Your task to perform on an android device: turn on wifi Image 0: 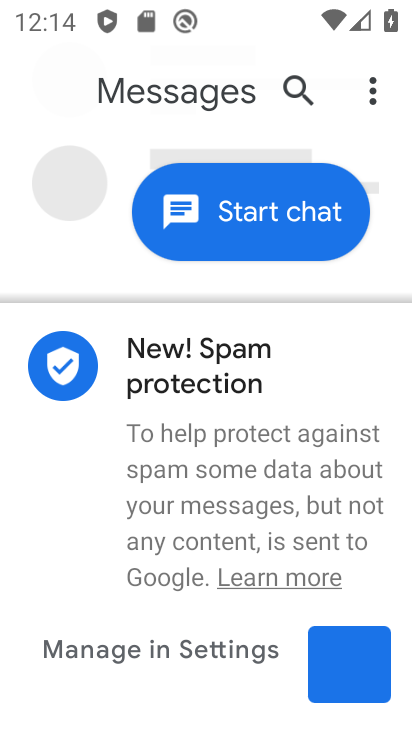
Step 0: press home button
Your task to perform on an android device: turn on wifi Image 1: 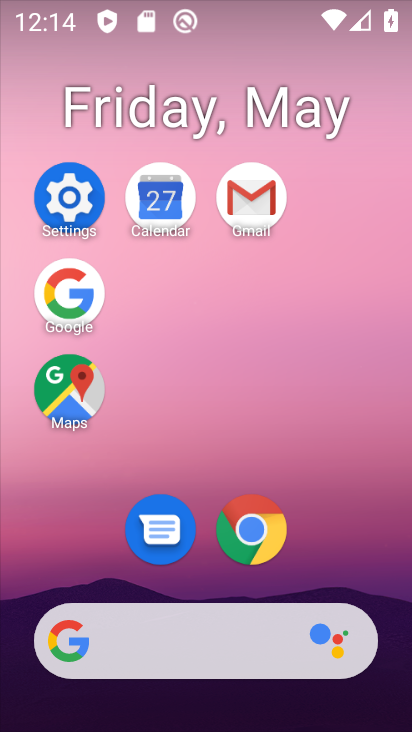
Step 1: click (69, 204)
Your task to perform on an android device: turn on wifi Image 2: 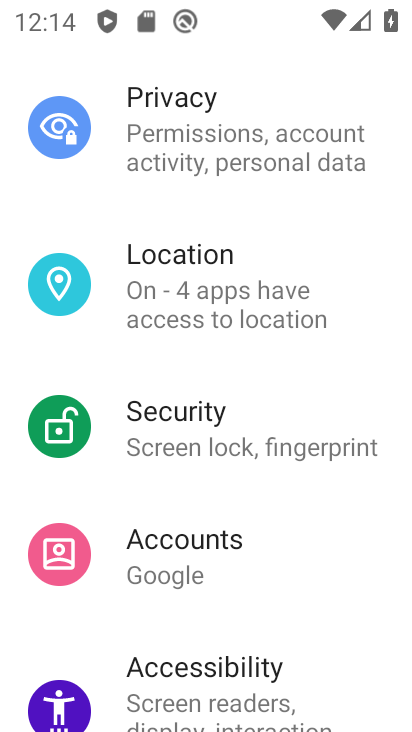
Step 2: drag from (246, 180) to (273, 636)
Your task to perform on an android device: turn on wifi Image 3: 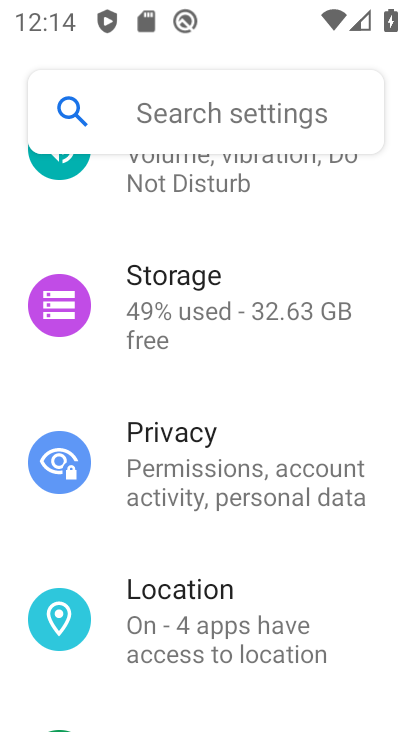
Step 3: drag from (285, 221) to (269, 694)
Your task to perform on an android device: turn on wifi Image 4: 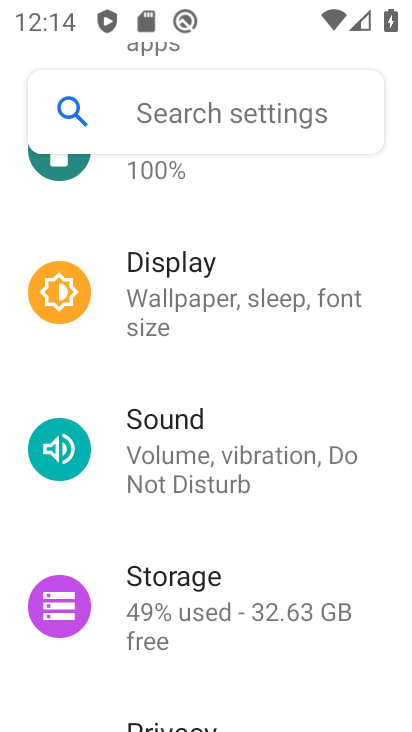
Step 4: drag from (295, 221) to (309, 673)
Your task to perform on an android device: turn on wifi Image 5: 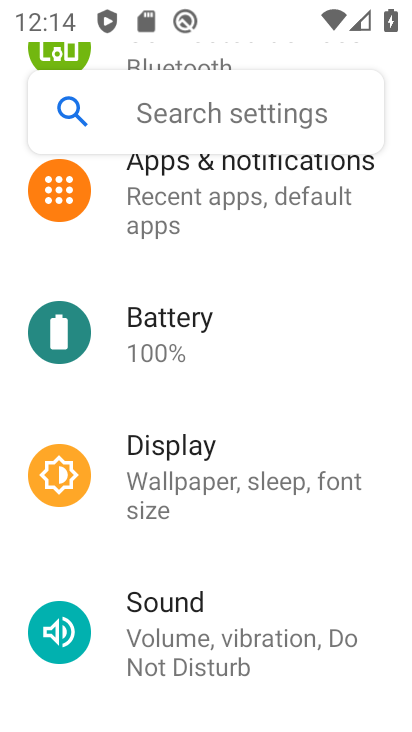
Step 5: drag from (274, 283) to (283, 728)
Your task to perform on an android device: turn on wifi Image 6: 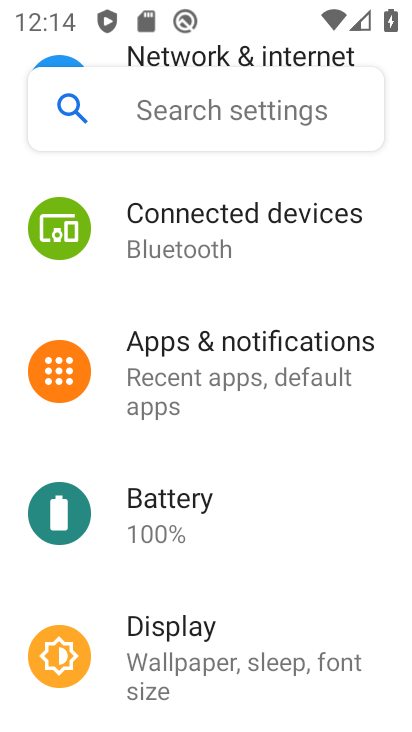
Step 6: drag from (270, 227) to (260, 729)
Your task to perform on an android device: turn on wifi Image 7: 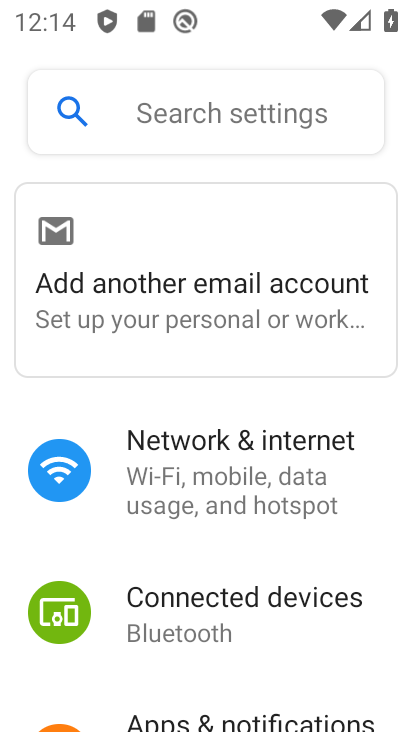
Step 7: click (283, 477)
Your task to perform on an android device: turn on wifi Image 8: 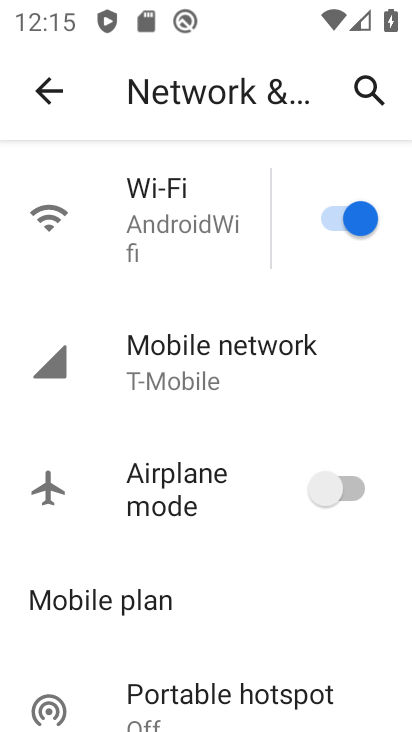
Step 8: task complete